Your task to perform on an android device: Do I have any events today? Image 0: 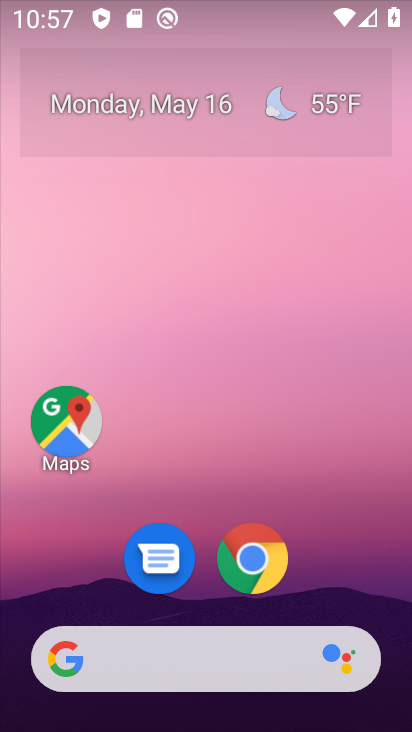
Step 0: drag from (313, 176) to (314, 110)
Your task to perform on an android device: Do I have any events today? Image 1: 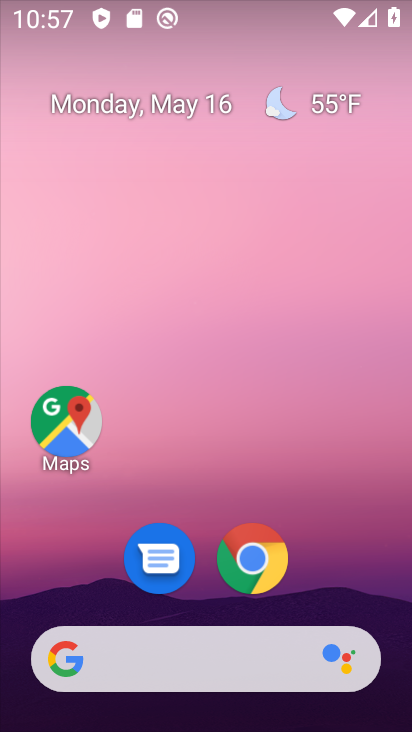
Step 1: drag from (82, 560) to (123, 82)
Your task to perform on an android device: Do I have any events today? Image 2: 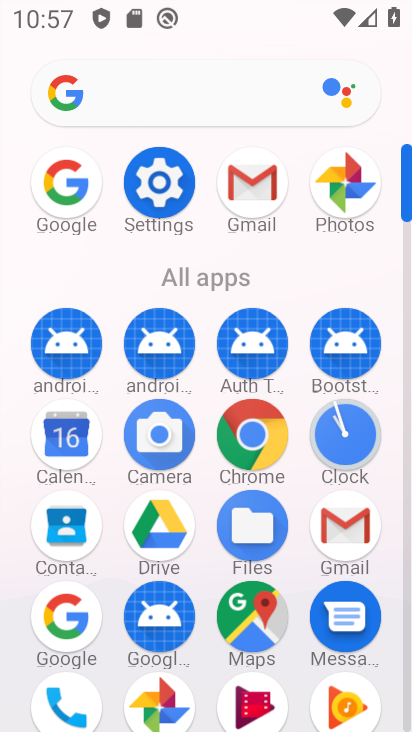
Step 2: click (59, 439)
Your task to perform on an android device: Do I have any events today? Image 3: 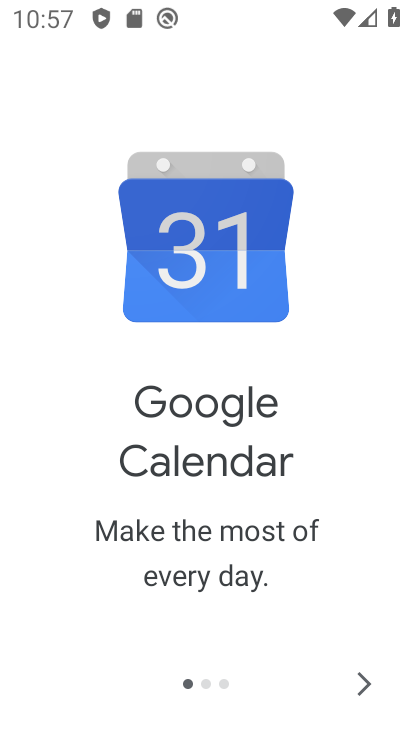
Step 3: click (354, 673)
Your task to perform on an android device: Do I have any events today? Image 4: 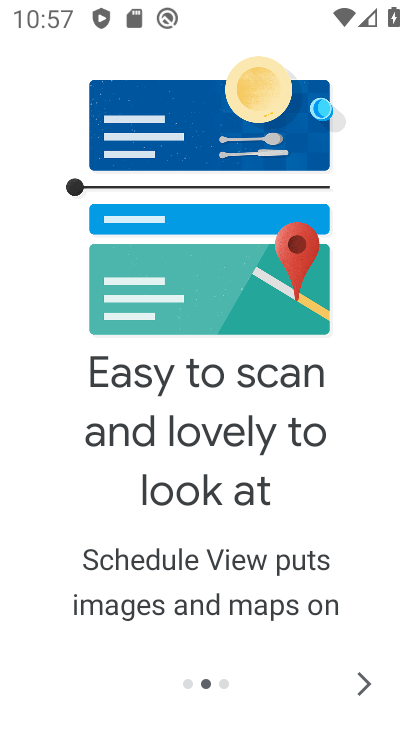
Step 4: click (355, 673)
Your task to perform on an android device: Do I have any events today? Image 5: 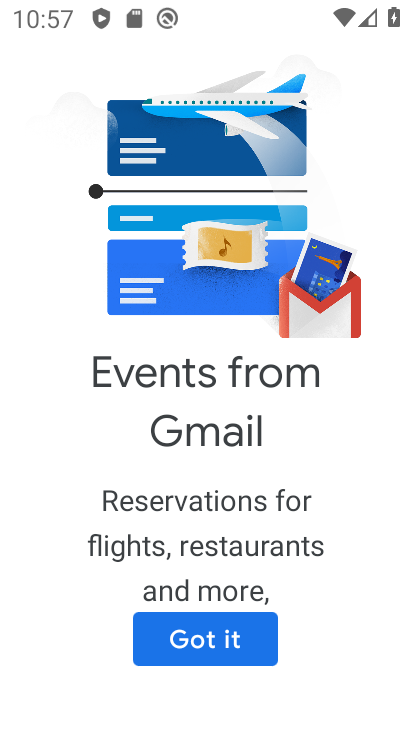
Step 5: click (221, 635)
Your task to perform on an android device: Do I have any events today? Image 6: 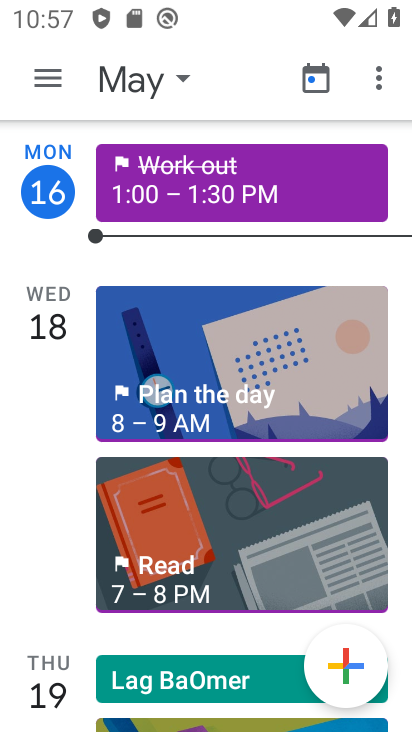
Step 6: click (159, 82)
Your task to perform on an android device: Do I have any events today? Image 7: 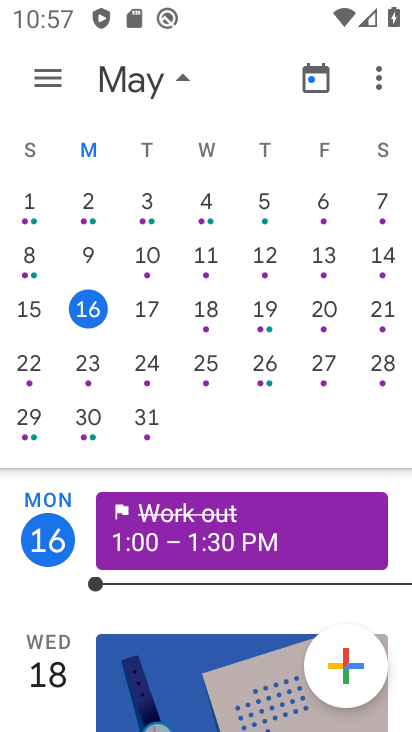
Step 7: click (90, 310)
Your task to perform on an android device: Do I have any events today? Image 8: 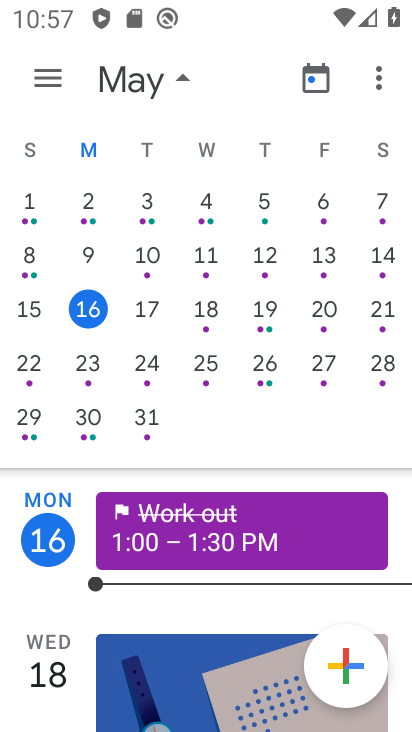
Step 8: task complete